Your task to perform on an android device: Open settings on Google Maps Image 0: 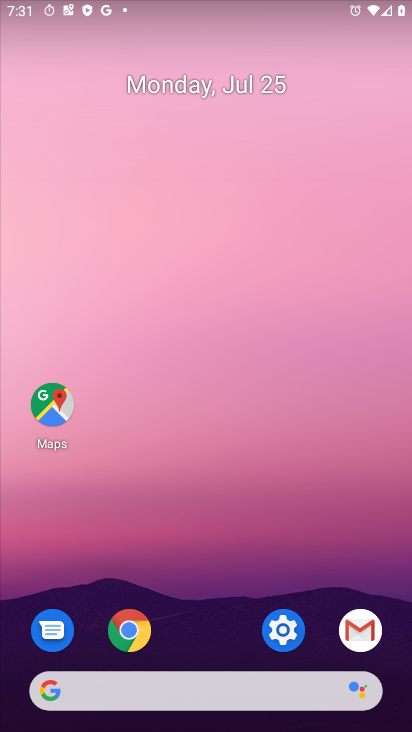
Step 0: click (35, 400)
Your task to perform on an android device: Open settings on Google Maps Image 1: 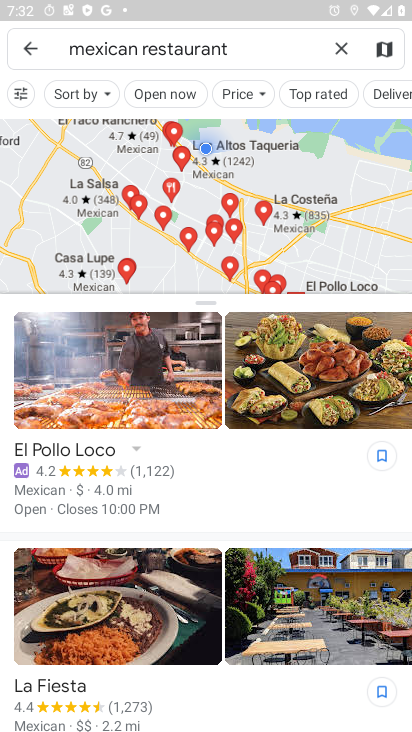
Step 1: click (36, 42)
Your task to perform on an android device: Open settings on Google Maps Image 2: 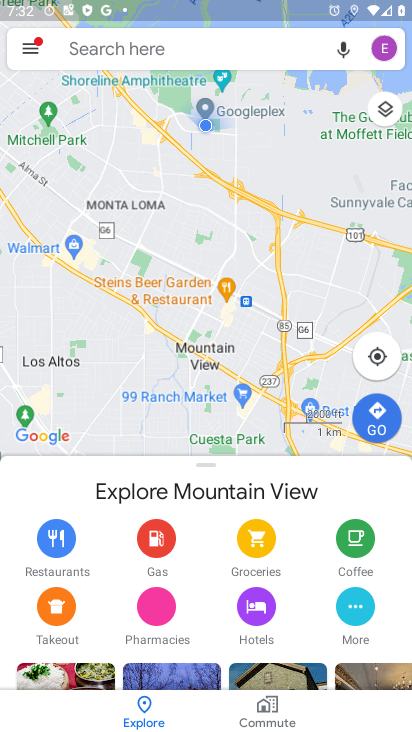
Step 2: click (31, 52)
Your task to perform on an android device: Open settings on Google Maps Image 3: 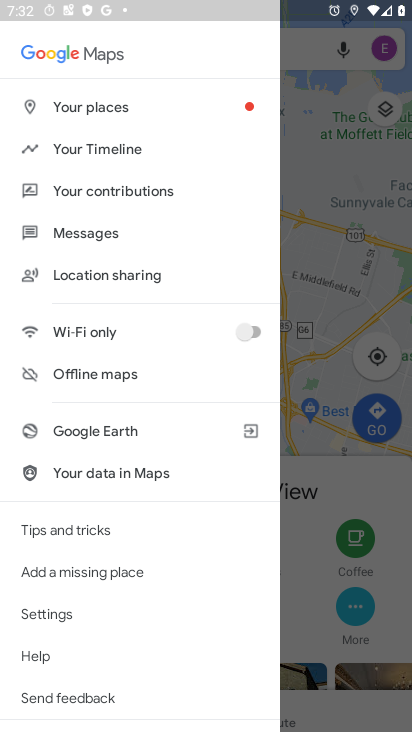
Step 3: click (82, 612)
Your task to perform on an android device: Open settings on Google Maps Image 4: 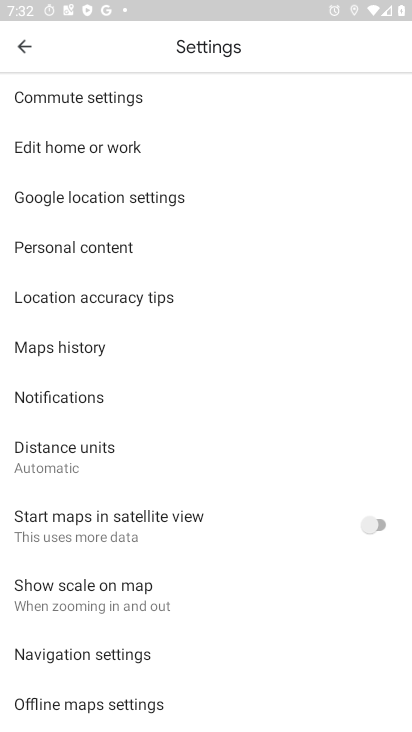
Step 4: task complete